Your task to perform on an android device: Open Google Chrome and click the shortcut for Amazon.com Image 0: 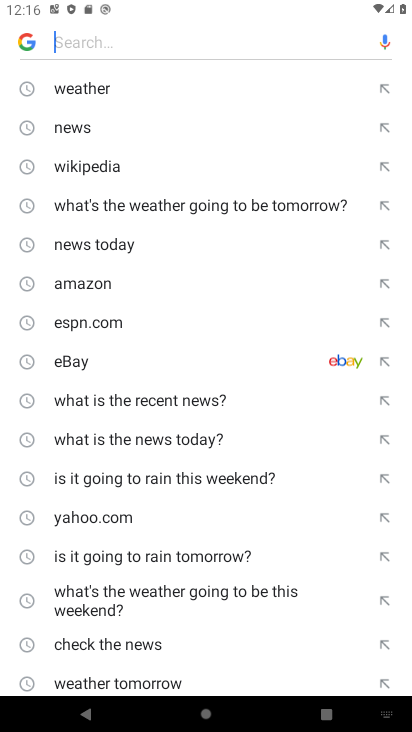
Step 0: press home button
Your task to perform on an android device: Open Google Chrome and click the shortcut for Amazon.com Image 1: 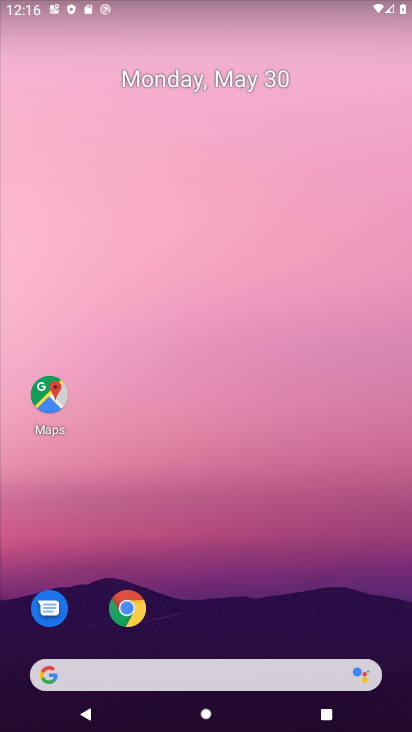
Step 1: click (137, 607)
Your task to perform on an android device: Open Google Chrome and click the shortcut for Amazon.com Image 2: 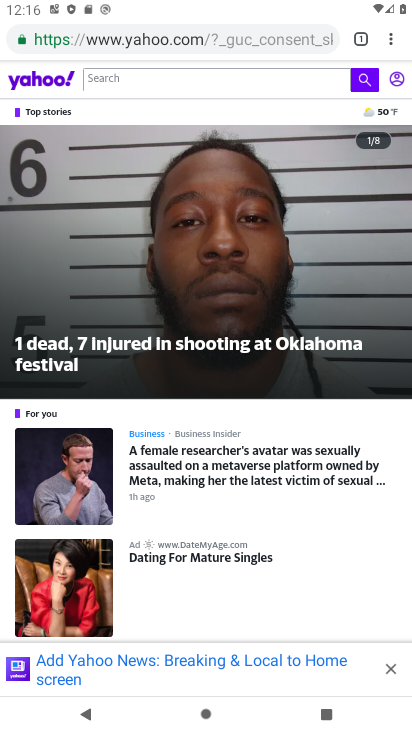
Step 2: click (362, 32)
Your task to perform on an android device: Open Google Chrome and click the shortcut for Amazon.com Image 3: 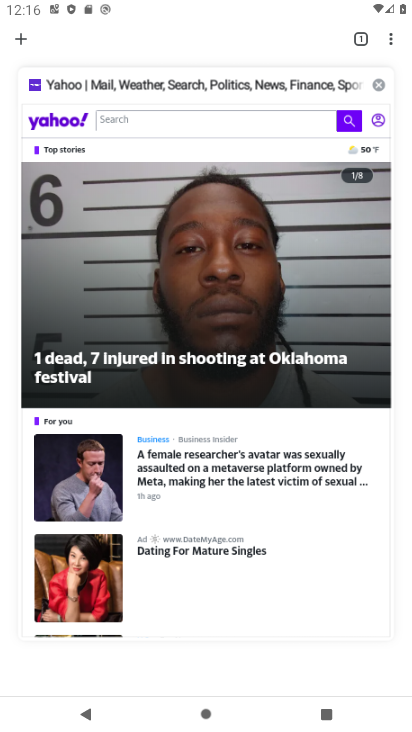
Step 3: click (23, 34)
Your task to perform on an android device: Open Google Chrome and click the shortcut for Amazon.com Image 4: 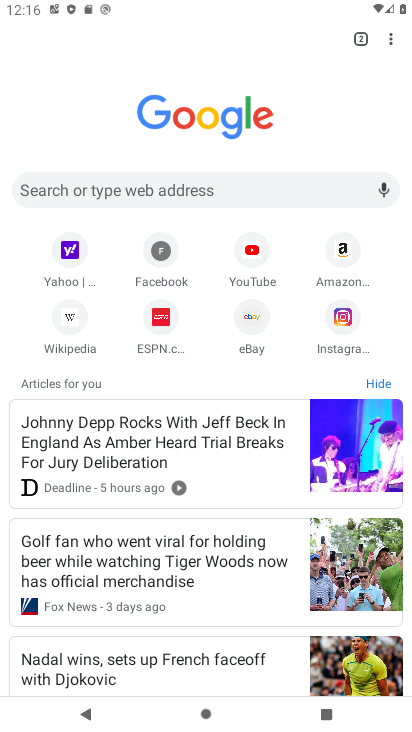
Step 4: click (349, 248)
Your task to perform on an android device: Open Google Chrome and click the shortcut for Amazon.com Image 5: 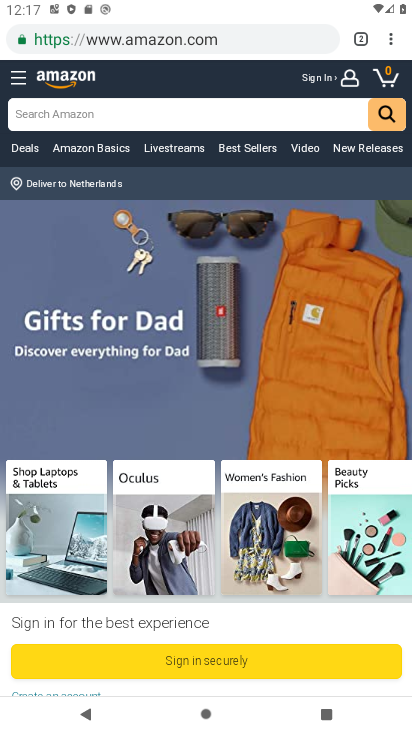
Step 5: task complete